Your task to perform on an android device: set the stopwatch Image 0: 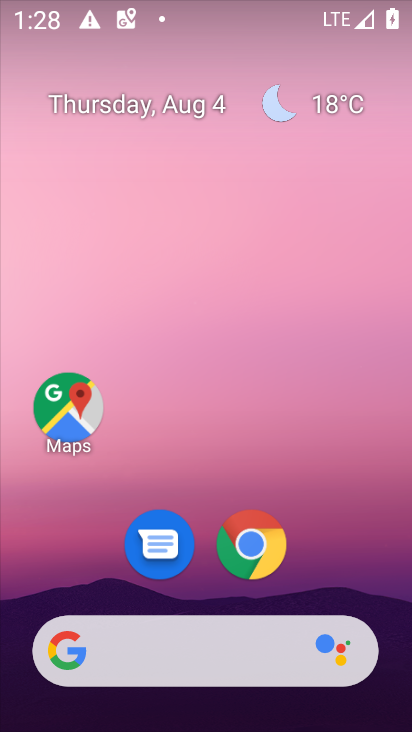
Step 0: drag from (393, 691) to (309, 144)
Your task to perform on an android device: set the stopwatch Image 1: 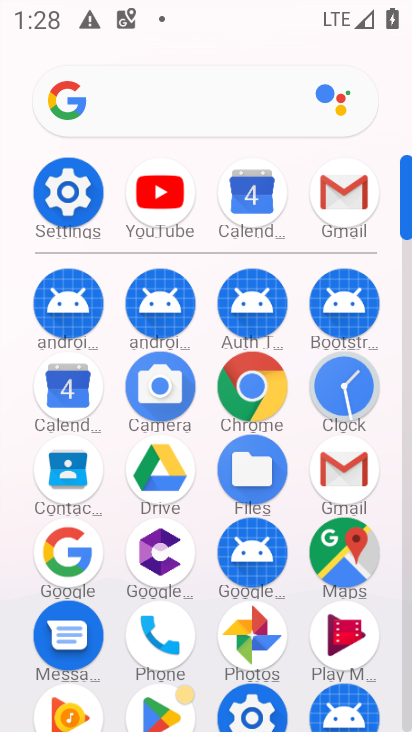
Step 1: click (76, 194)
Your task to perform on an android device: set the stopwatch Image 2: 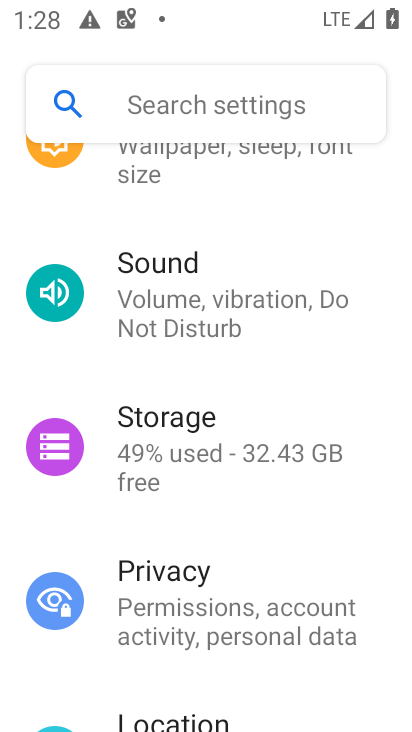
Step 2: press back button
Your task to perform on an android device: set the stopwatch Image 3: 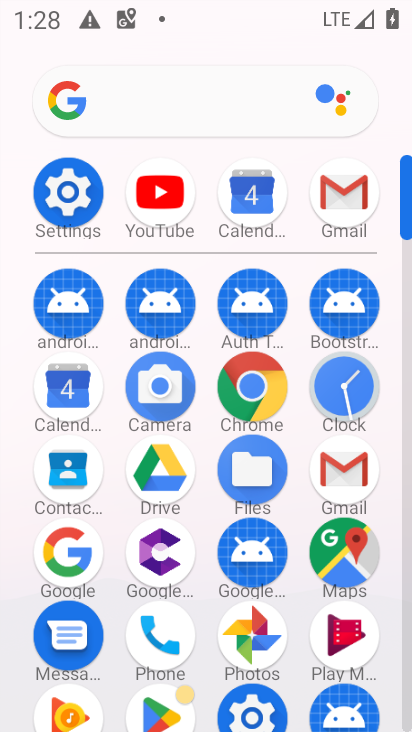
Step 3: click (350, 375)
Your task to perform on an android device: set the stopwatch Image 4: 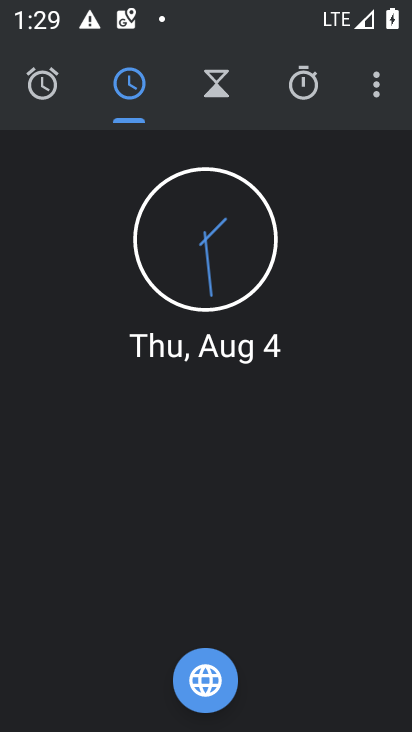
Step 4: click (301, 99)
Your task to perform on an android device: set the stopwatch Image 5: 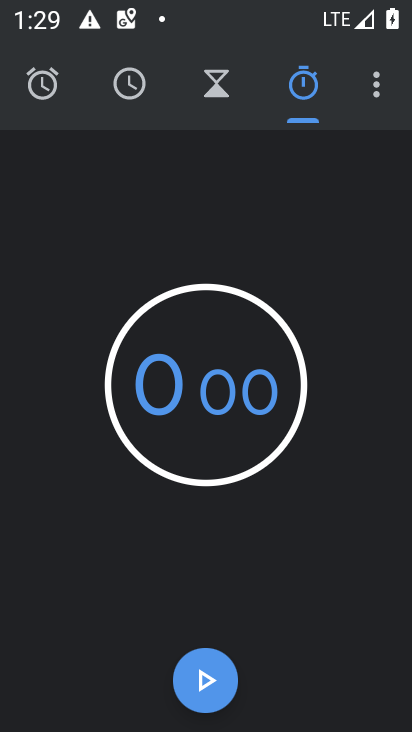
Step 5: click (190, 676)
Your task to perform on an android device: set the stopwatch Image 6: 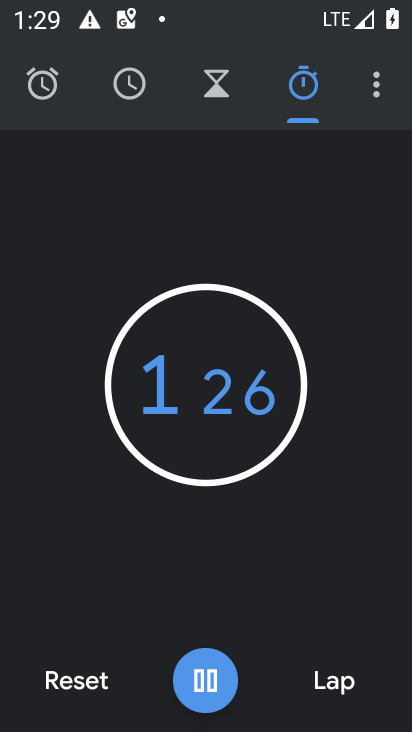
Step 6: task complete